Your task to perform on an android device: Show me popular games on the Play Store Image 0: 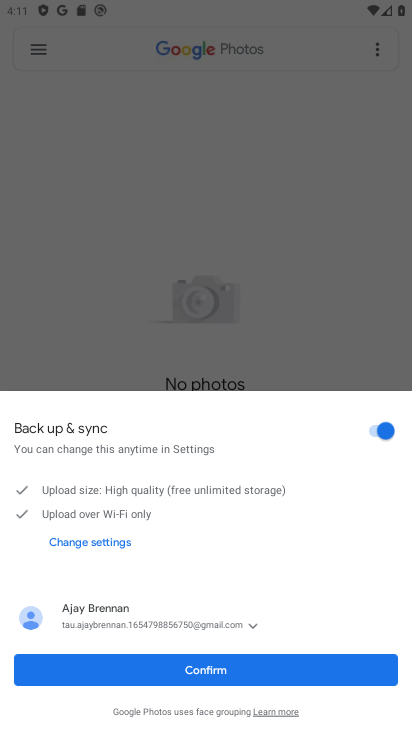
Step 0: press home button
Your task to perform on an android device: Show me popular games on the Play Store Image 1: 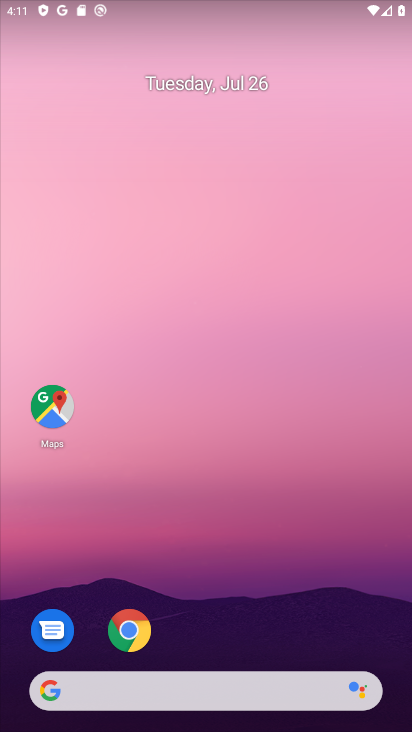
Step 1: drag from (336, 619) to (301, 147)
Your task to perform on an android device: Show me popular games on the Play Store Image 2: 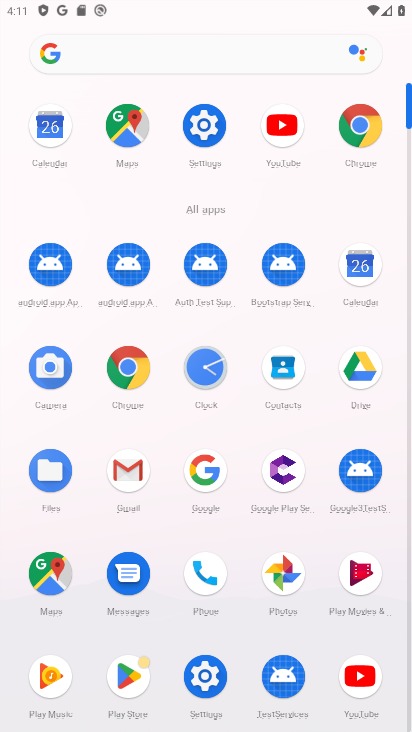
Step 2: click (130, 674)
Your task to perform on an android device: Show me popular games on the Play Store Image 3: 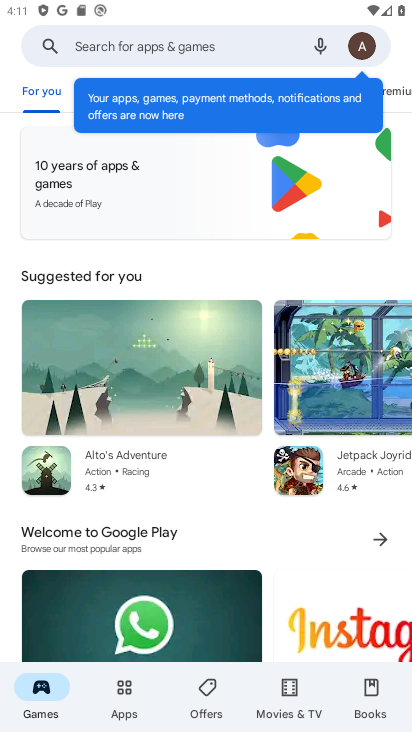
Step 3: drag from (308, 529) to (318, 63)
Your task to perform on an android device: Show me popular games on the Play Store Image 4: 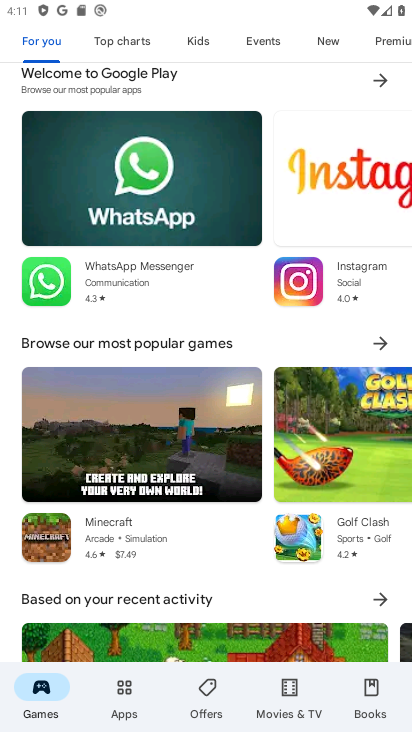
Step 4: drag from (237, 553) to (293, 56)
Your task to perform on an android device: Show me popular games on the Play Store Image 5: 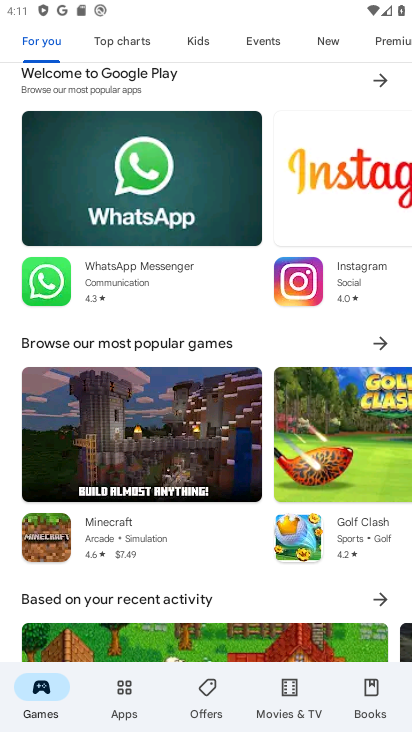
Step 5: drag from (238, 572) to (319, 64)
Your task to perform on an android device: Show me popular games on the Play Store Image 6: 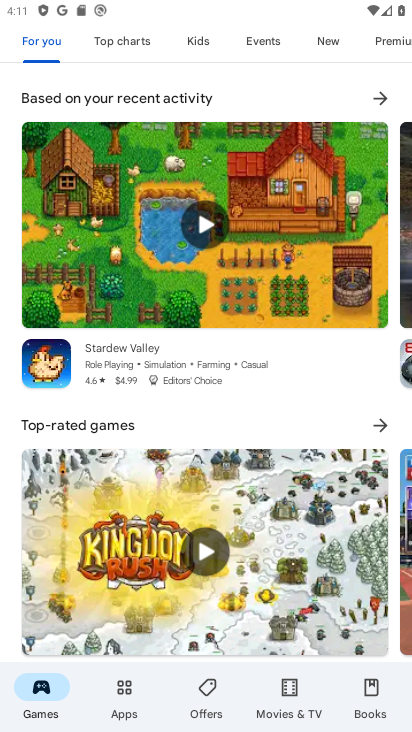
Step 6: drag from (303, 415) to (306, 0)
Your task to perform on an android device: Show me popular games on the Play Store Image 7: 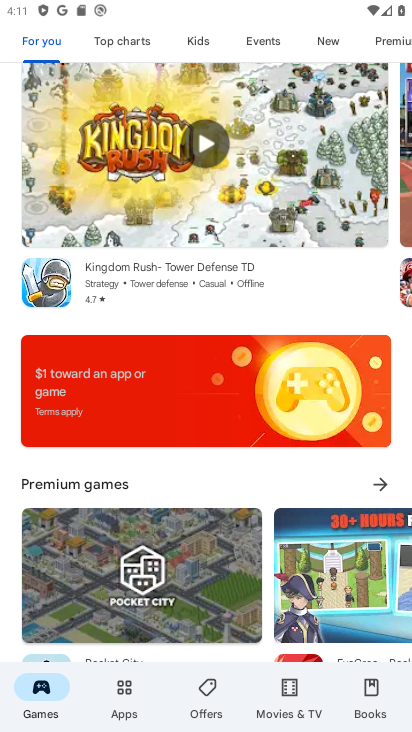
Step 7: drag from (259, 491) to (320, 25)
Your task to perform on an android device: Show me popular games on the Play Store Image 8: 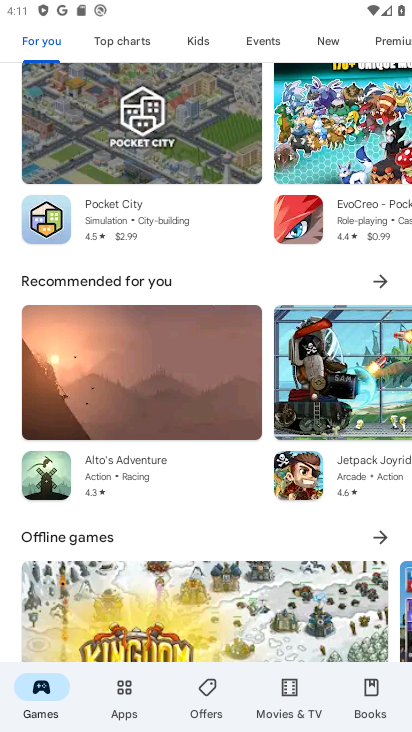
Step 8: drag from (227, 471) to (289, 0)
Your task to perform on an android device: Show me popular games on the Play Store Image 9: 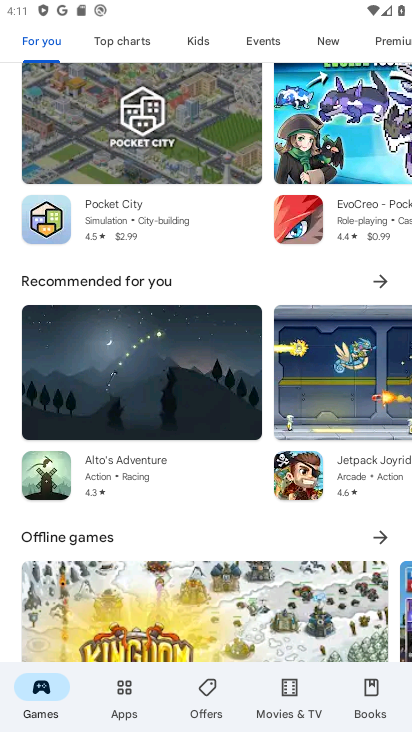
Step 9: drag from (240, 523) to (251, 0)
Your task to perform on an android device: Show me popular games on the Play Store Image 10: 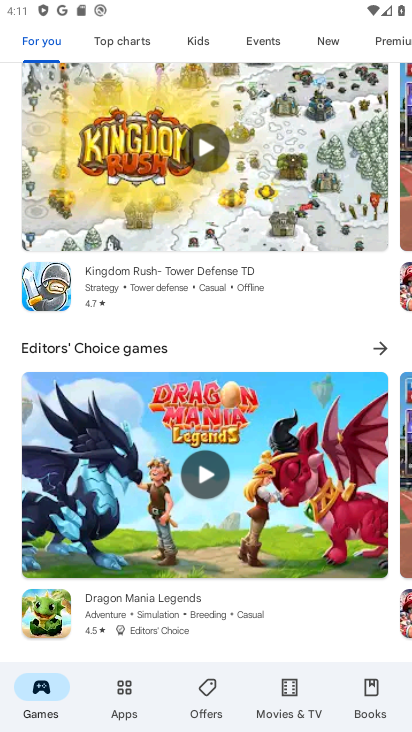
Step 10: click (313, 109)
Your task to perform on an android device: Show me popular games on the Play Store Image 11: 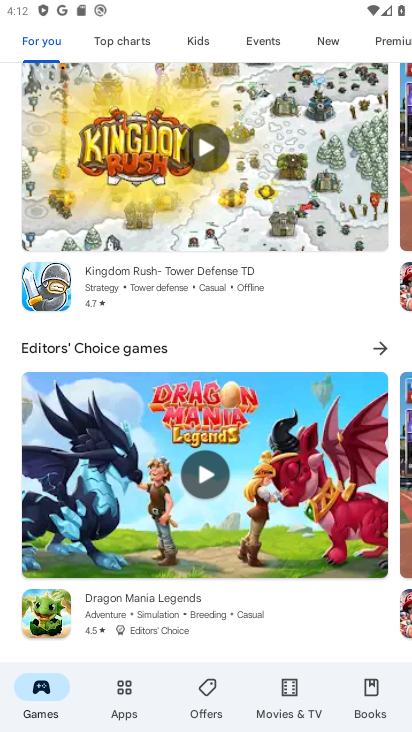
Step 11: click (346, 616)
Your task to perform on an android device: Show me popular games on the Play Store Image 12: 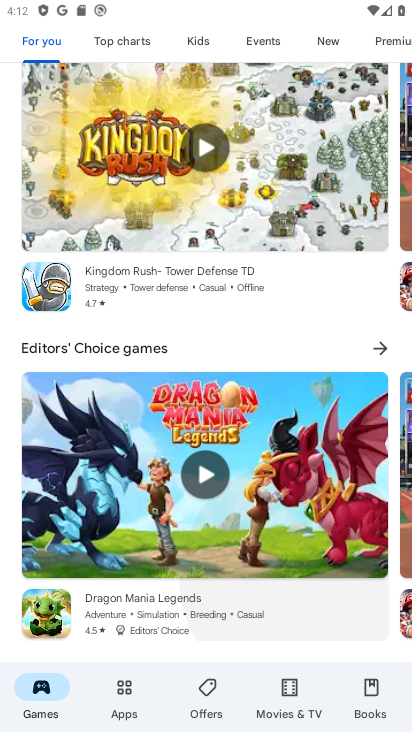
Step 12: drag from (349, 622) to (298, 63)
Your task to perform on an android device: Show me popular games on the Play Store Image 13: 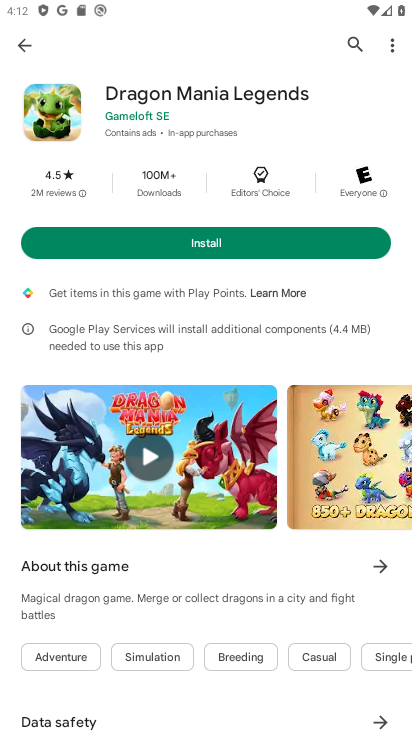
Step 13: click (18, 40)
Your task to perform on an android device: Show me popular games on the Play Store Image 14: 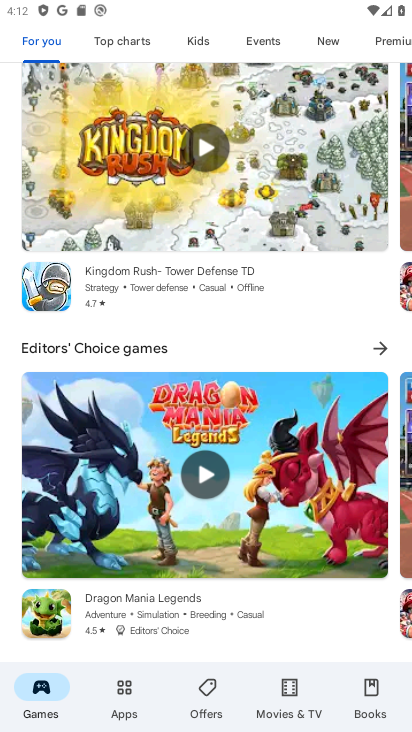
Step 14: task complete